Your task to perform on an android device: Open calendar and show me the first week of next month Image 0: 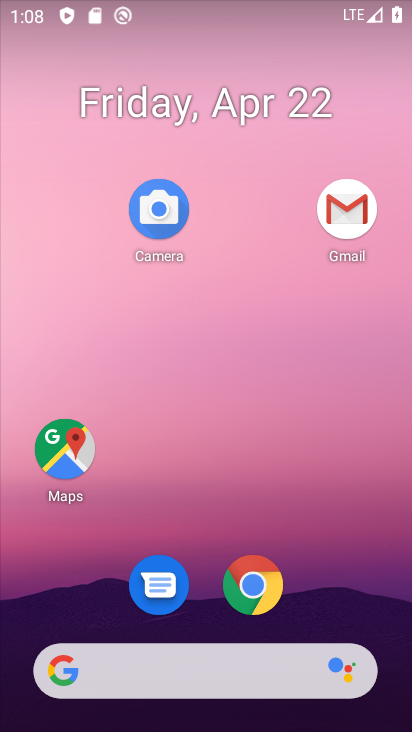
Step 0: drag from (323, 590) to (306, 144)
Your task to perform on an android device: Open calendar and show me the first week of next month Image 1: 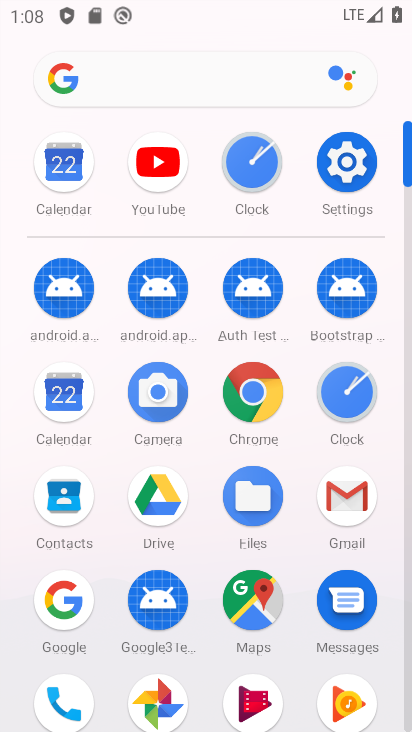
Step 1: click (70, 168)
Your task to perform on an android device: Open calendar and show me the first week of next month Image 2: 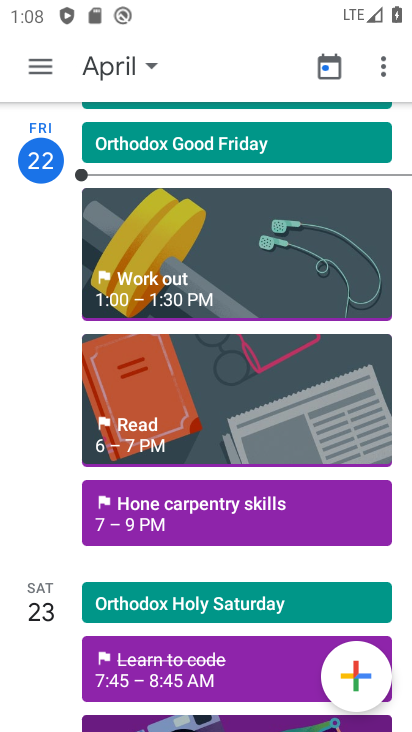
Step 2: click (42, 65)
Your task to perform on an android device: Open calendar and show me the first week of next month Image 3: 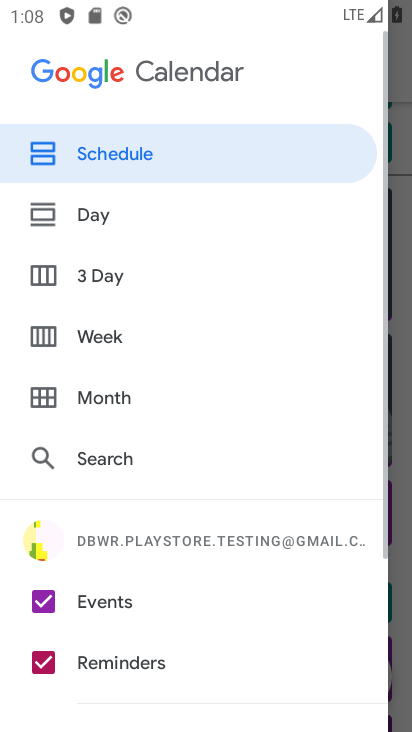
Step 3: click (50, 329)
Your task to perform on an android device: Open calendar and show me the first week of next month Image 4: 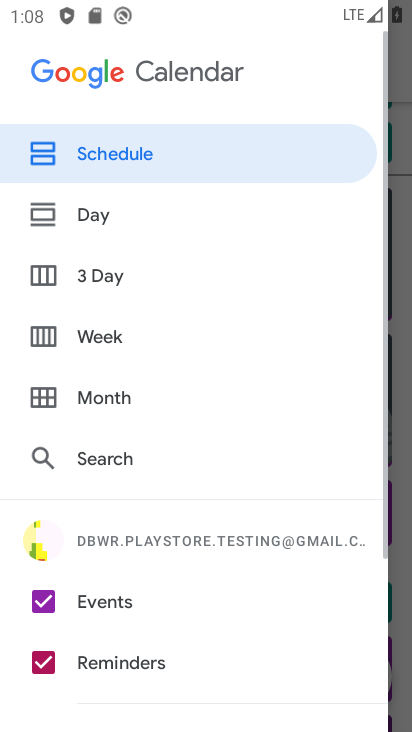
Step 4: click (50, 327)
Your task to perform on an android device: Open calendar and show me the first week of next month Image 5: 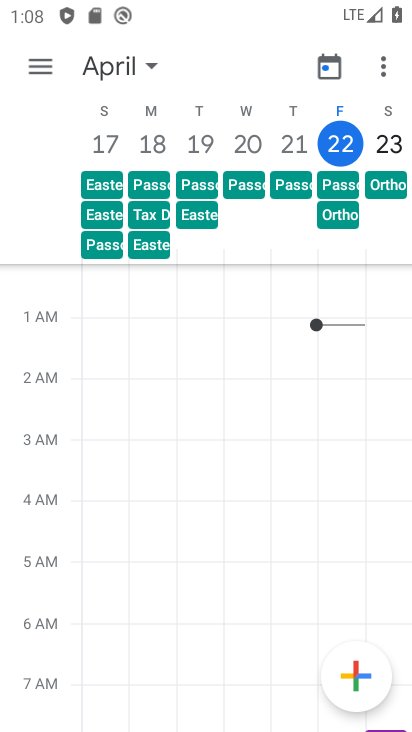
Step 5: task complete